Your task to perform on an android device: Is it going to rain today? Image 0: 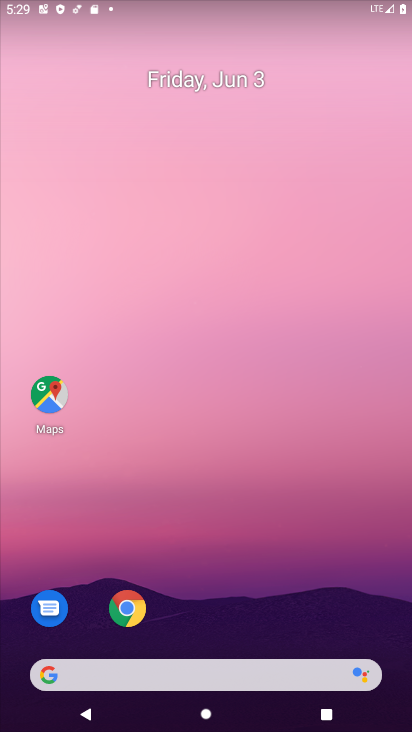
Step 0: click (136, 668)
Your task to perform on an android device: Is it going to rain today? Image 1: 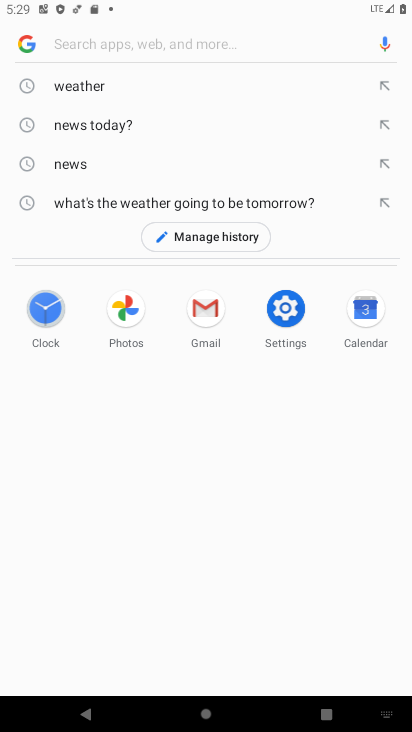
Step 1: click (88, 93)
Your task to perform on an android device: Is it going to rain today? Image 2: 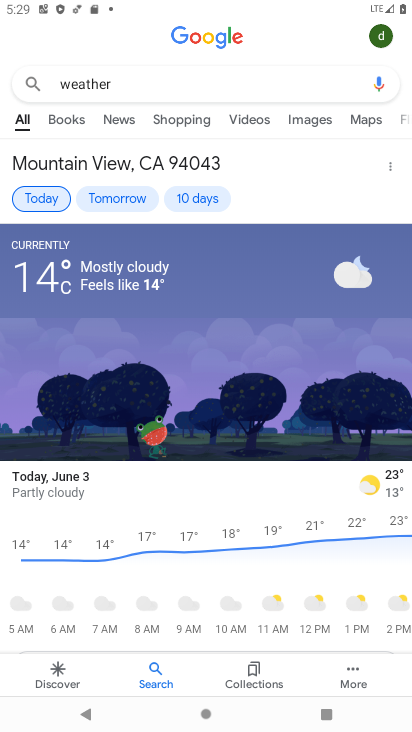
Step 2: task complete